Your task to perform on an android device: Go to sound settings Image 0: 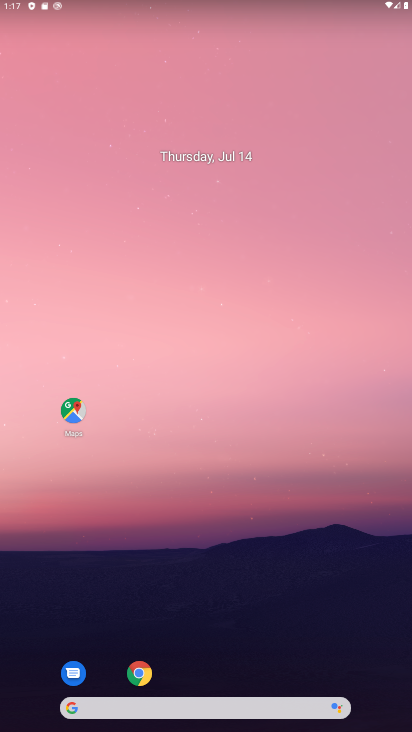
Step 0: drag from (320, 626) to (367, 274)
Your task to perform on an android device: Go to sound settings Image 1: 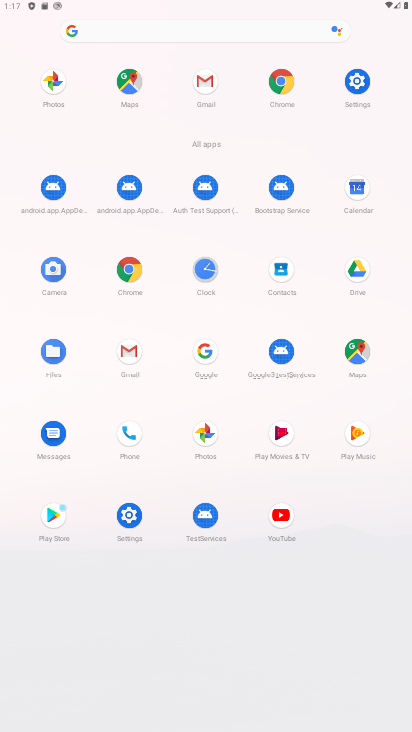
Step 1: click (351, 87)
Your task to perform on an android device: Go to sound settings Image 2: 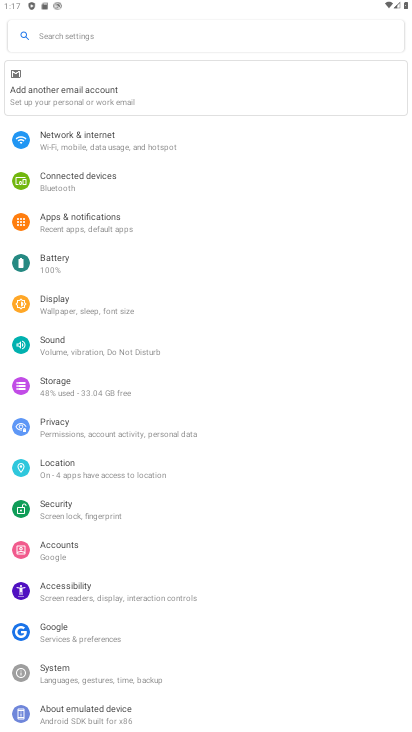
Step 2: click (95, 343)
Your task to perform on an android device: Go to sound settings Image 3: 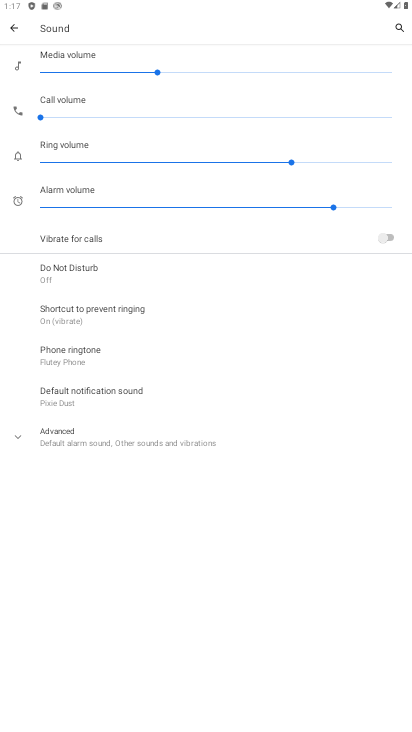
Step 3: task complete